Your task to perform on an android device: read, delete, or share a saved page in the chrome app Image 0: 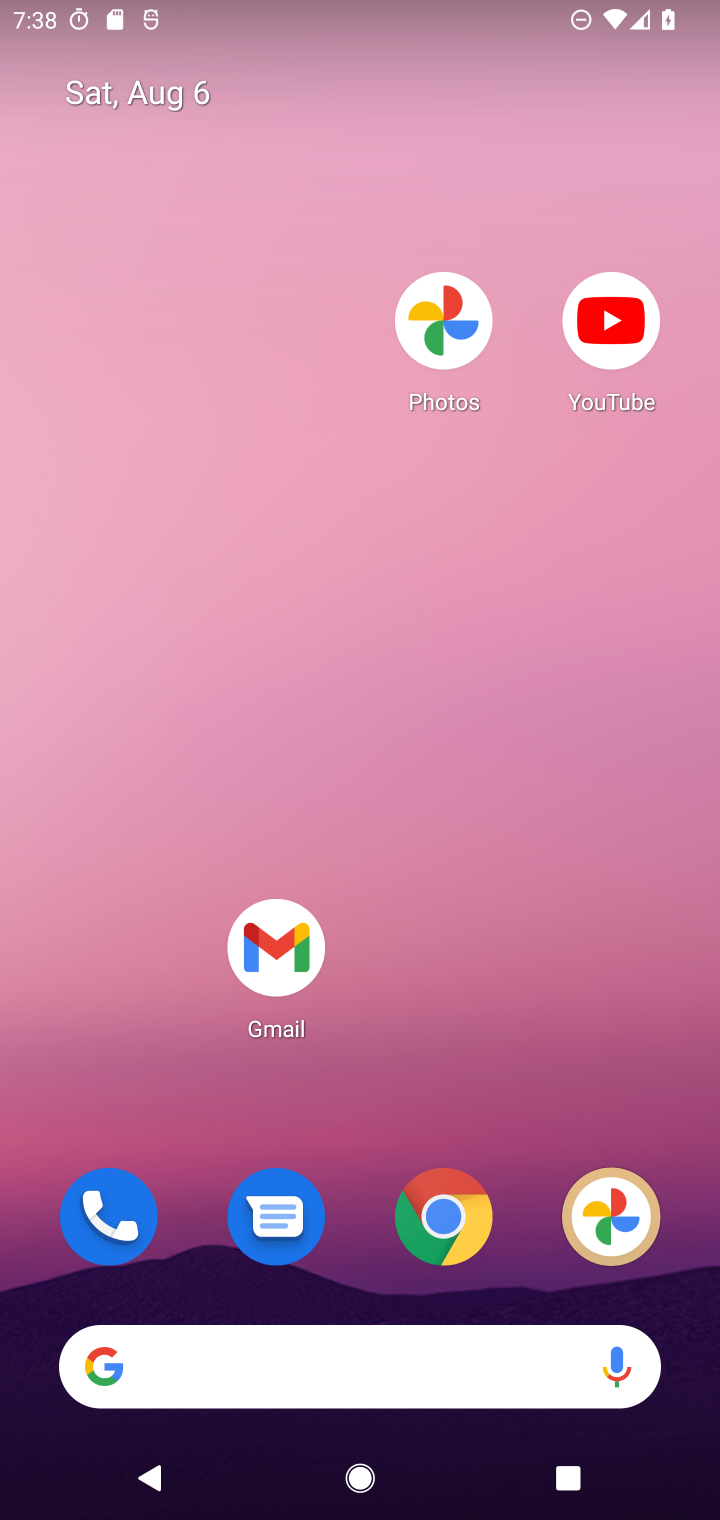
Step 0: drag from (566, 774) to (475, 109)
Your task to perform on an android device: read, delete, or share a saved page in the chrome app Image 1: 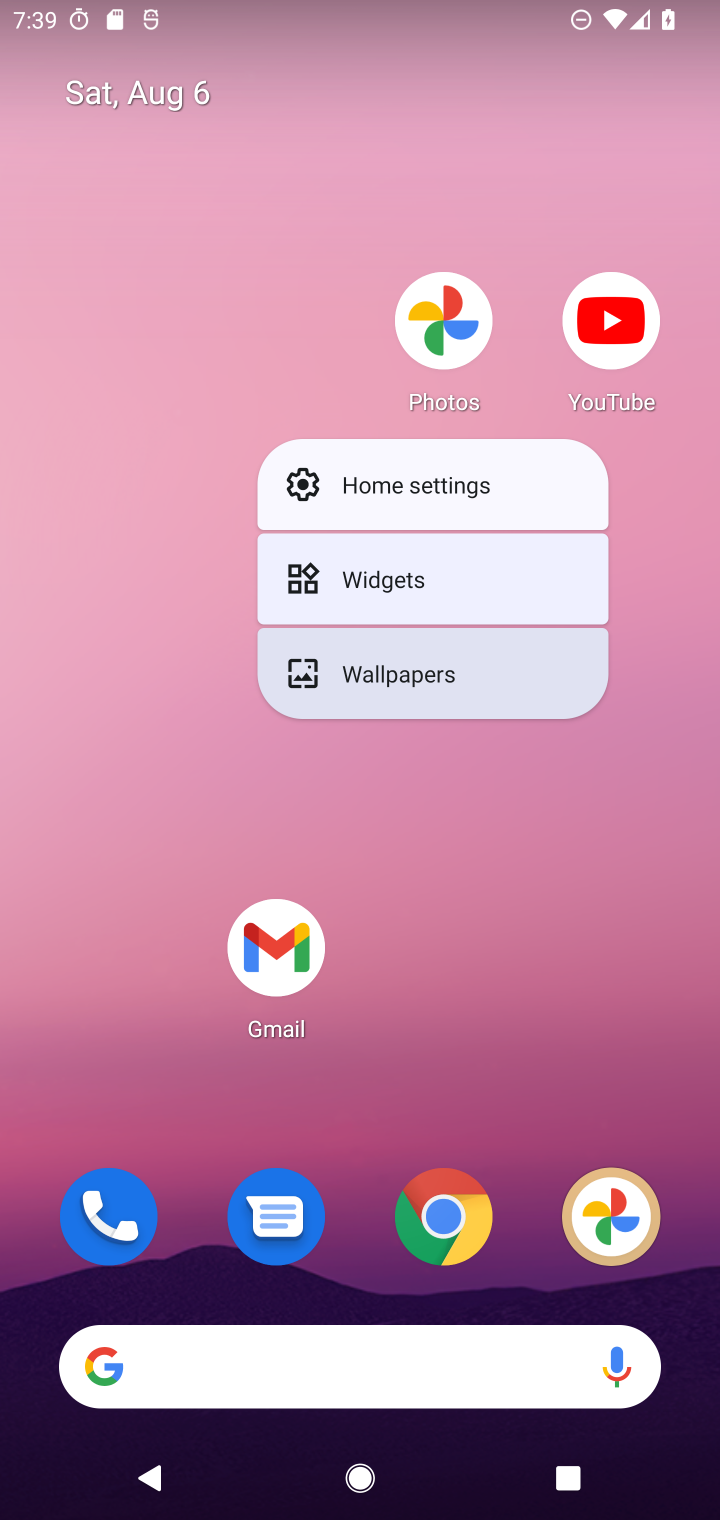
Step 1: click (506, 860)
Your task to perform on an android device: read, delete, or share a saved page in the chrome app Image 2: 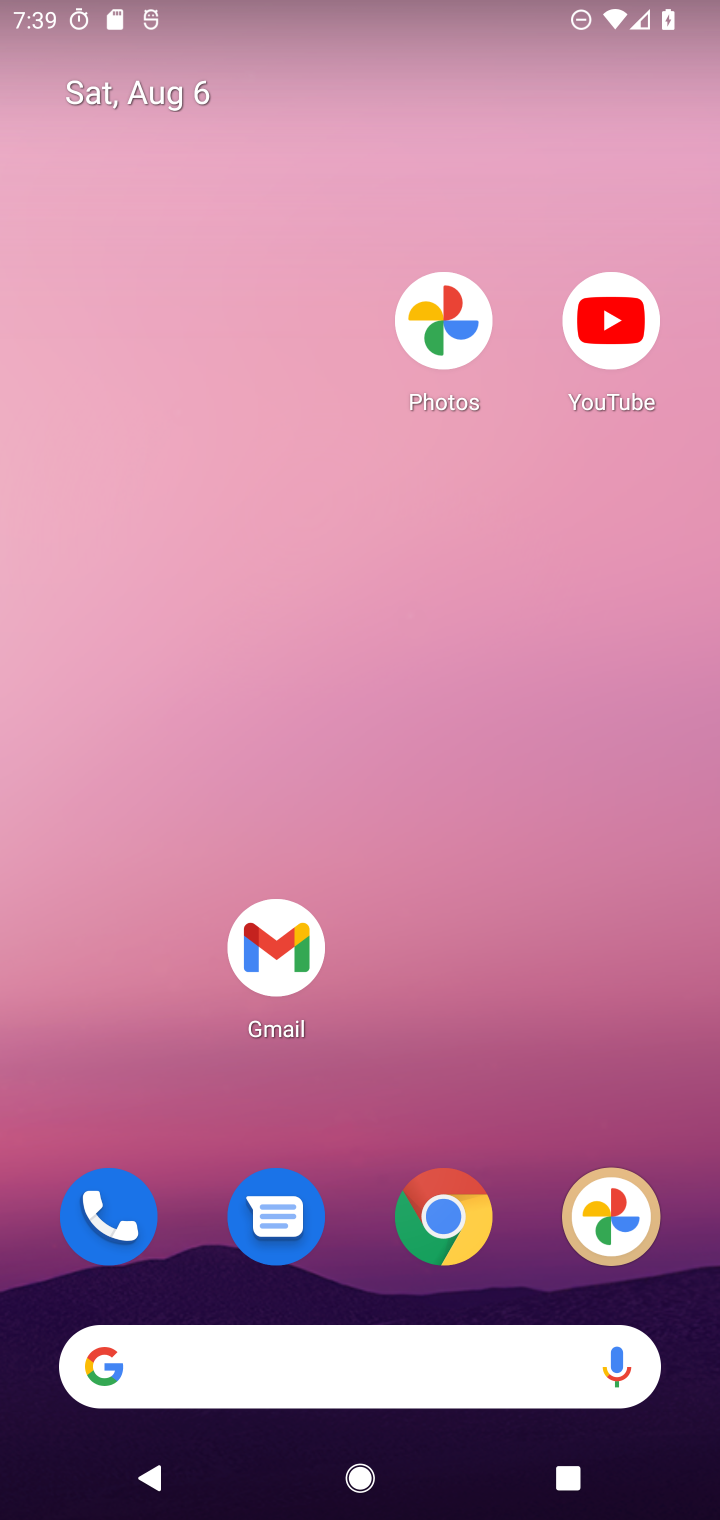
Step 2: drag from (497, 223) to (249, 14)
Your task to perform on an android device: read, delete, or share a saved page in the chrome app Image 3: 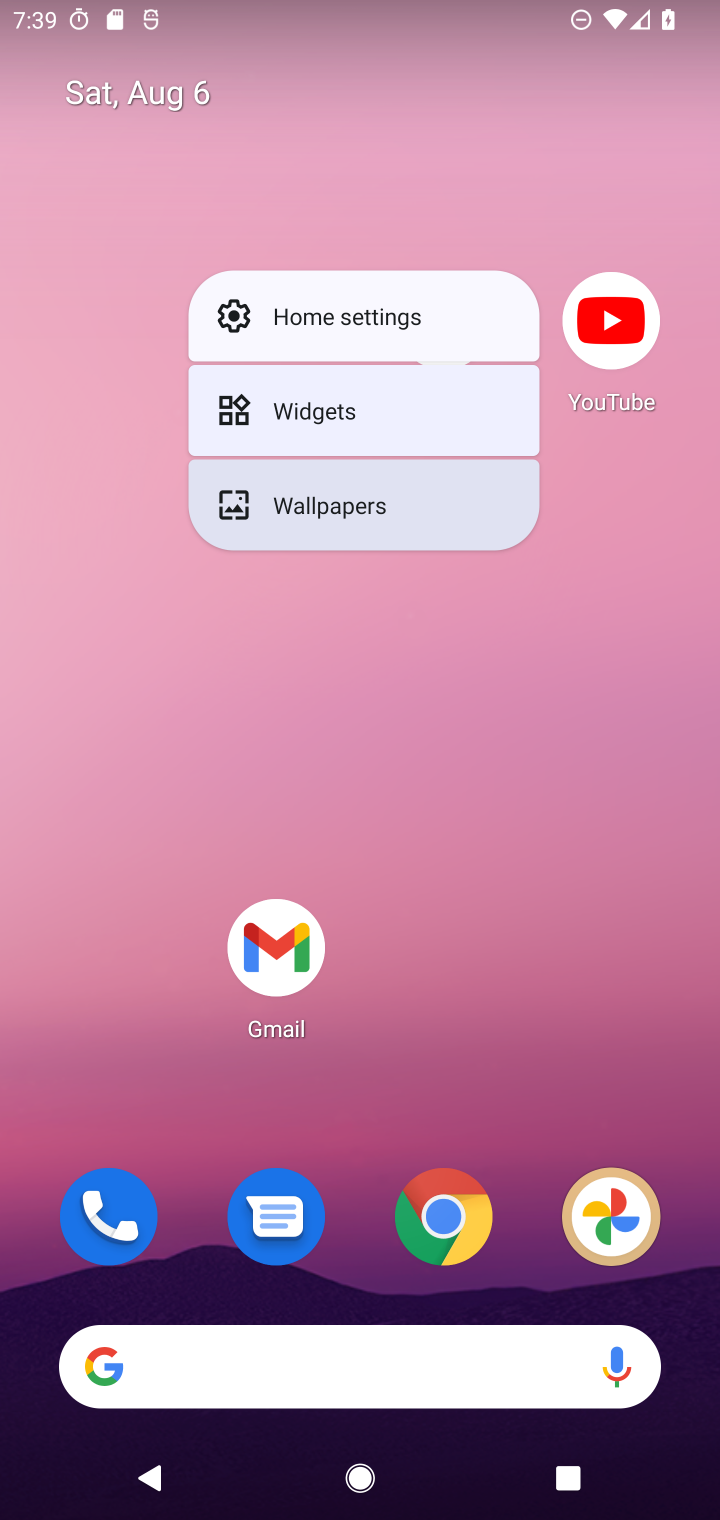
Step 3: click (376, 799)
Your task to perform on an android device: read, delete, or share a saved page in the chrome app Image 4: 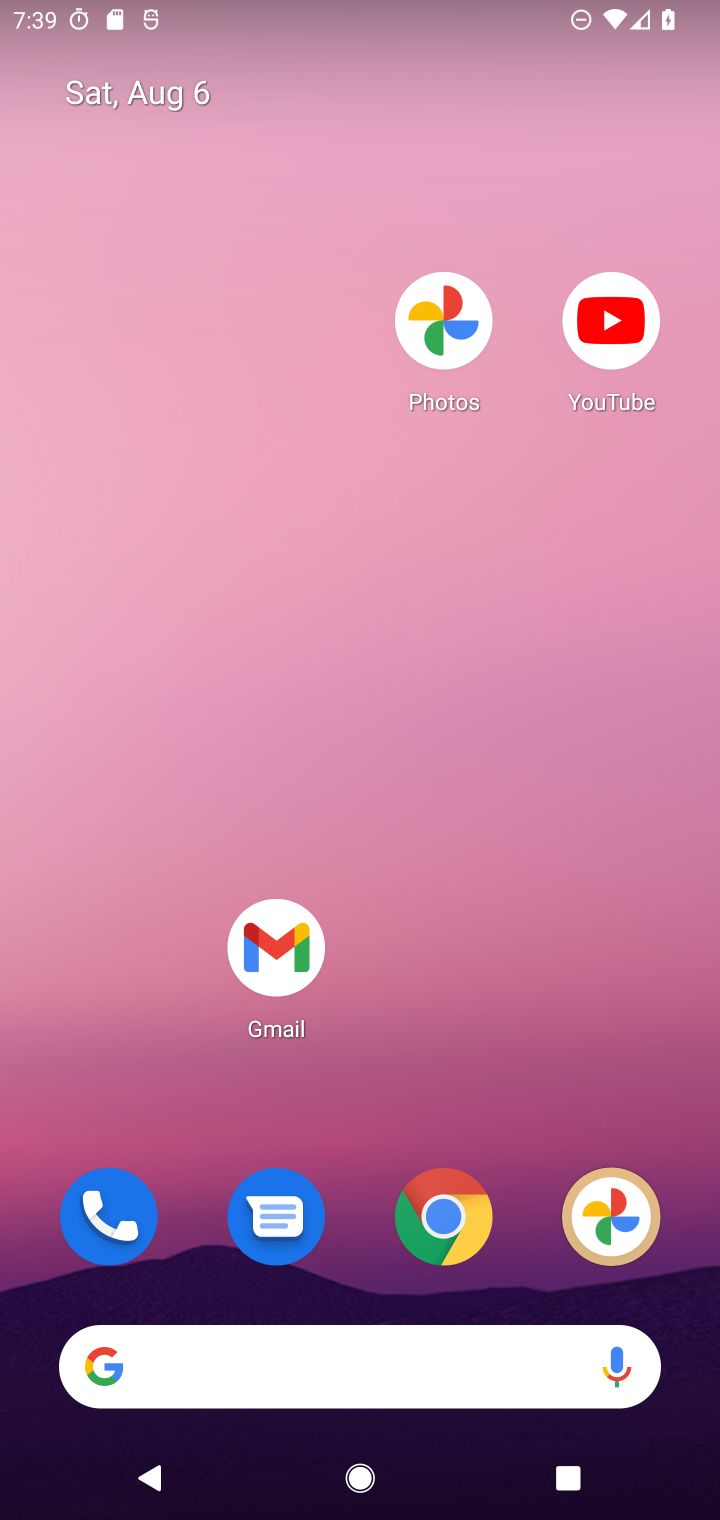
Step 4: click (585, 312)
Your task to perform on an android device: read, delete, or share a saved page in the chrome app Image 5: 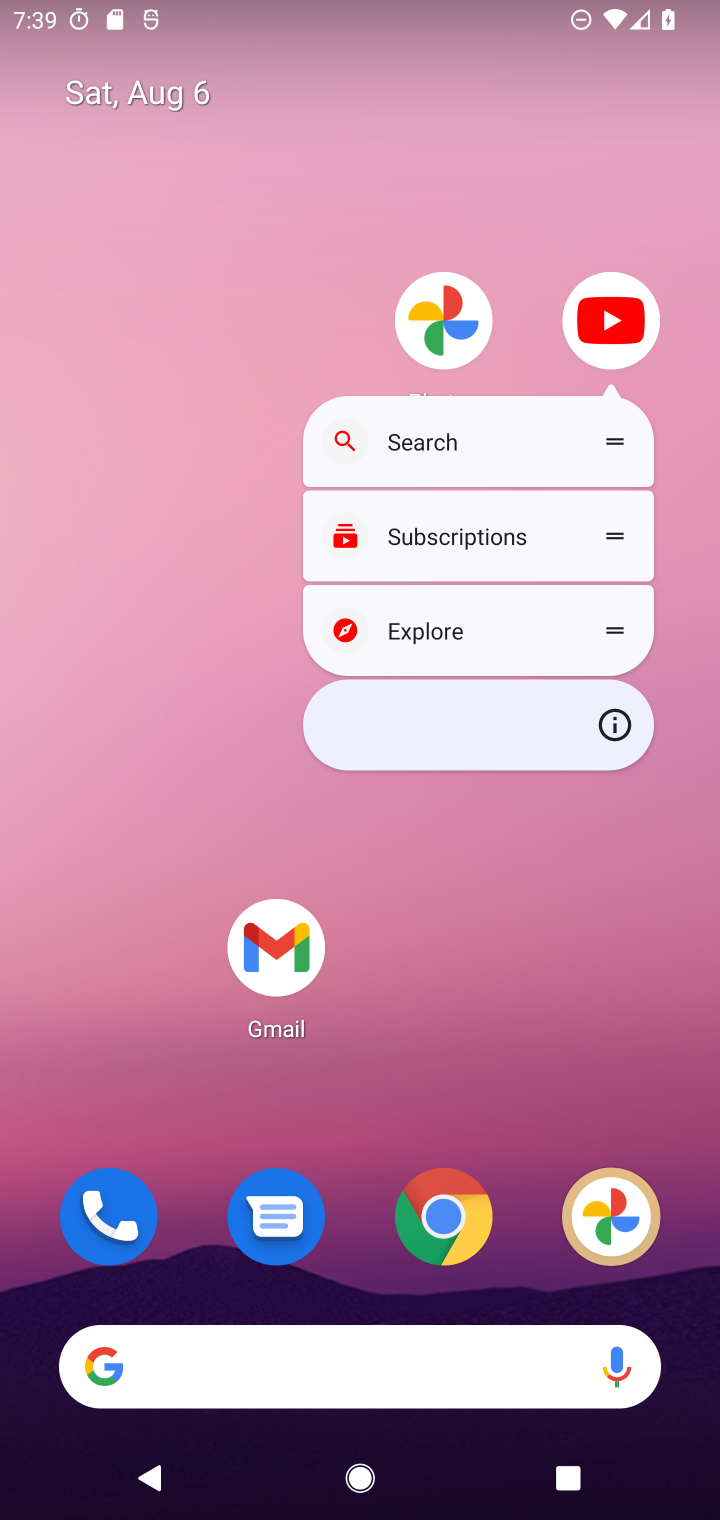
Step 5: click (512, 1039)
Your task to perform on an android device: read, delete, or share a saved page in the chrome app Image 6: 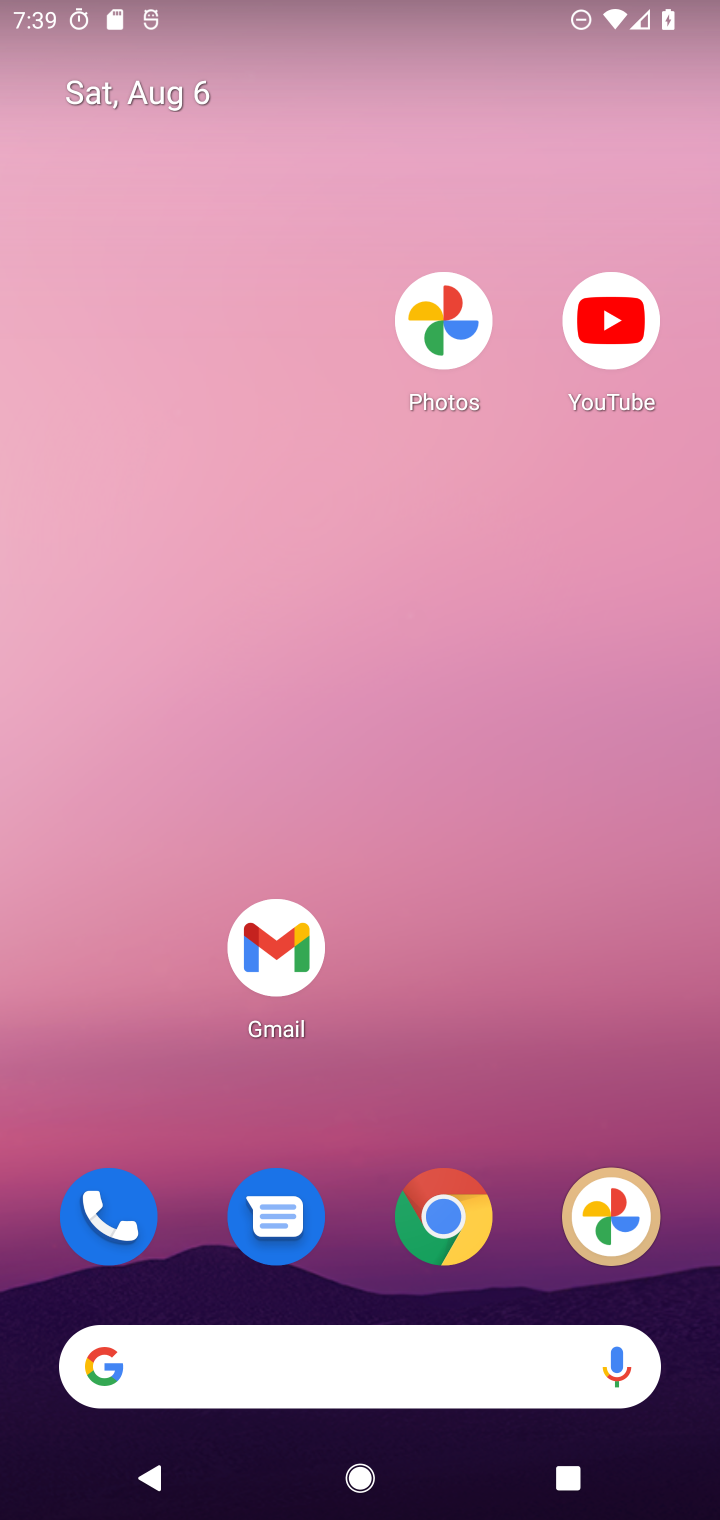
Step 6: drag from (436, 1018) to (530, 201)
Your task to perform on an android device: read, delete, or share a saved page in the chrome app Image 7: 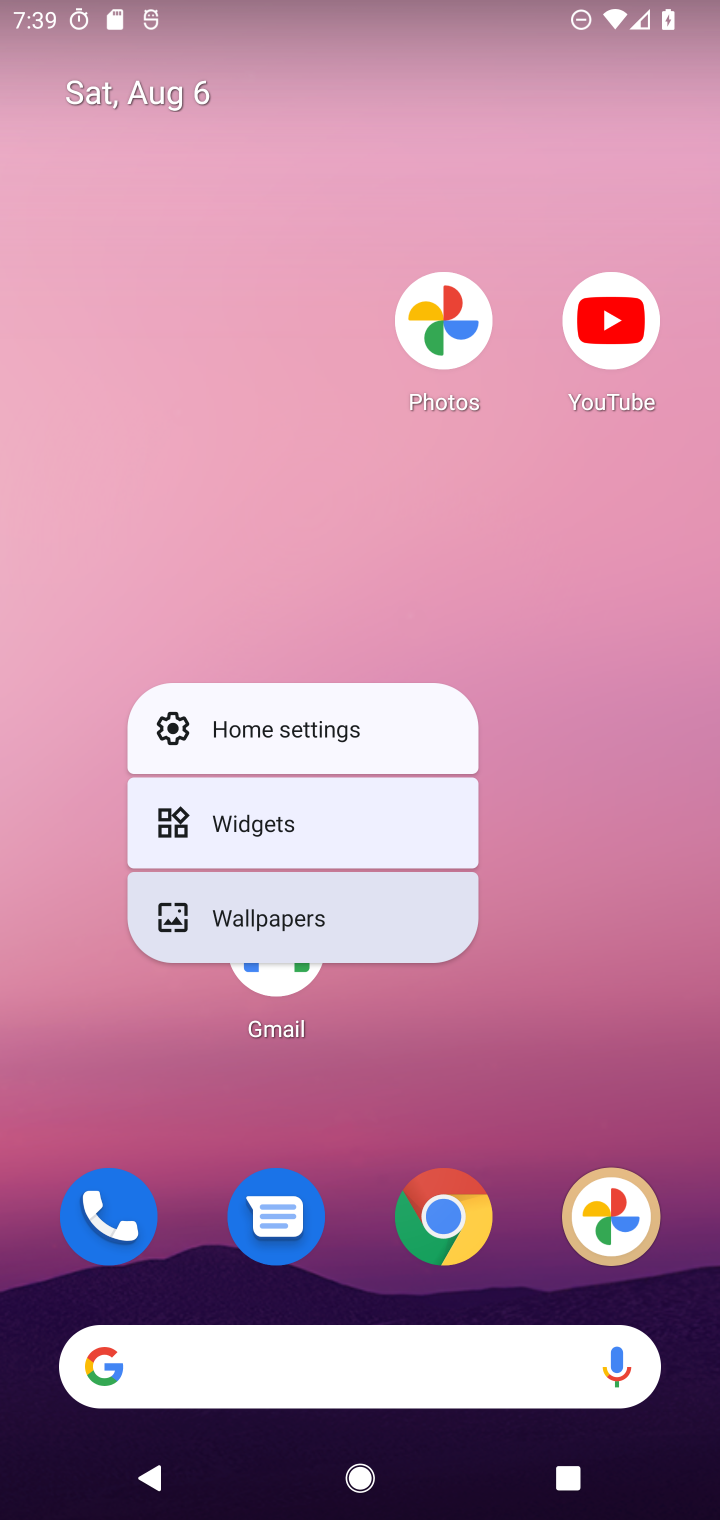
Step 7: click (596, 935)
Your task to perform on an android device: read, delete, or share a saved page in the chrome app Image 8: 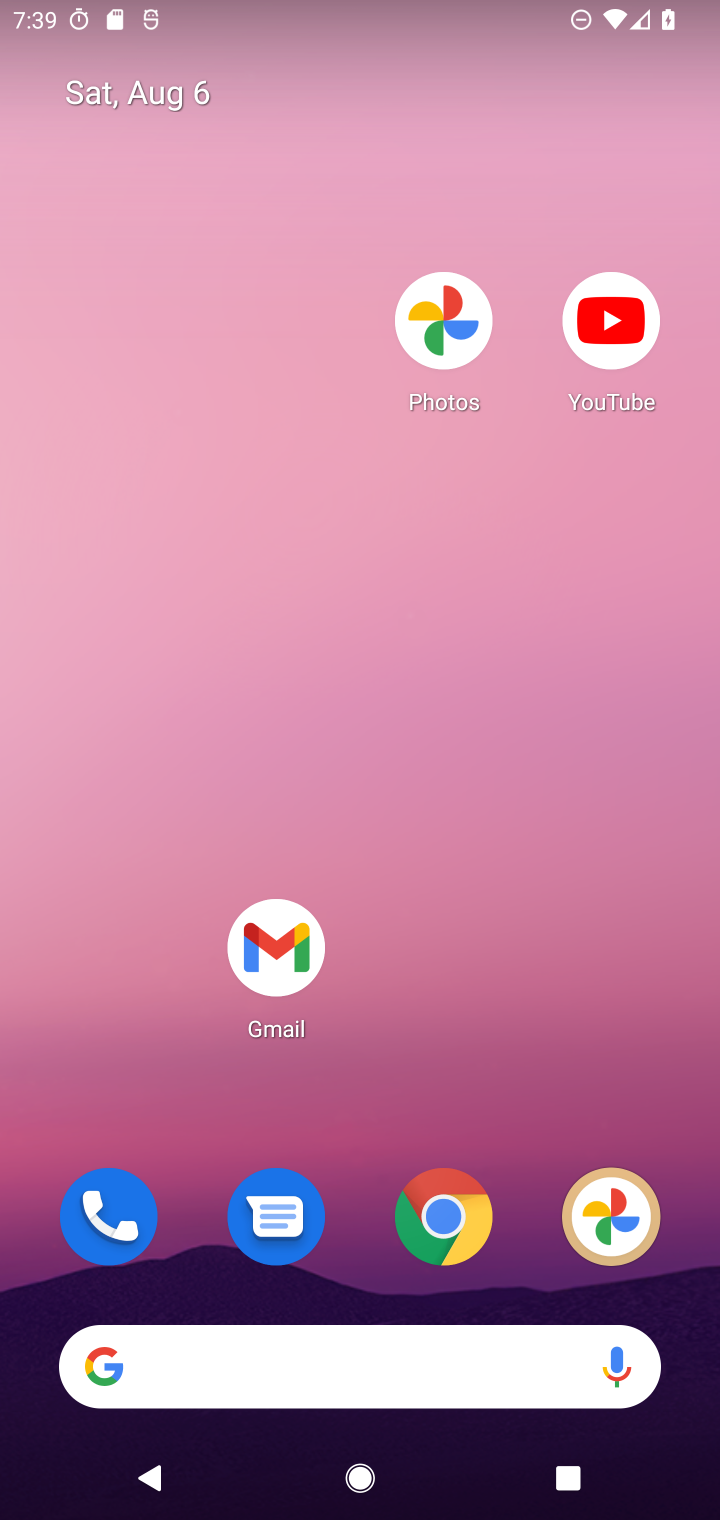
Step 8: drag from (556, 587) to (676, 258)
Your task to perform on an android device: read, delete, or share a saved page in the chrome app Image 9: 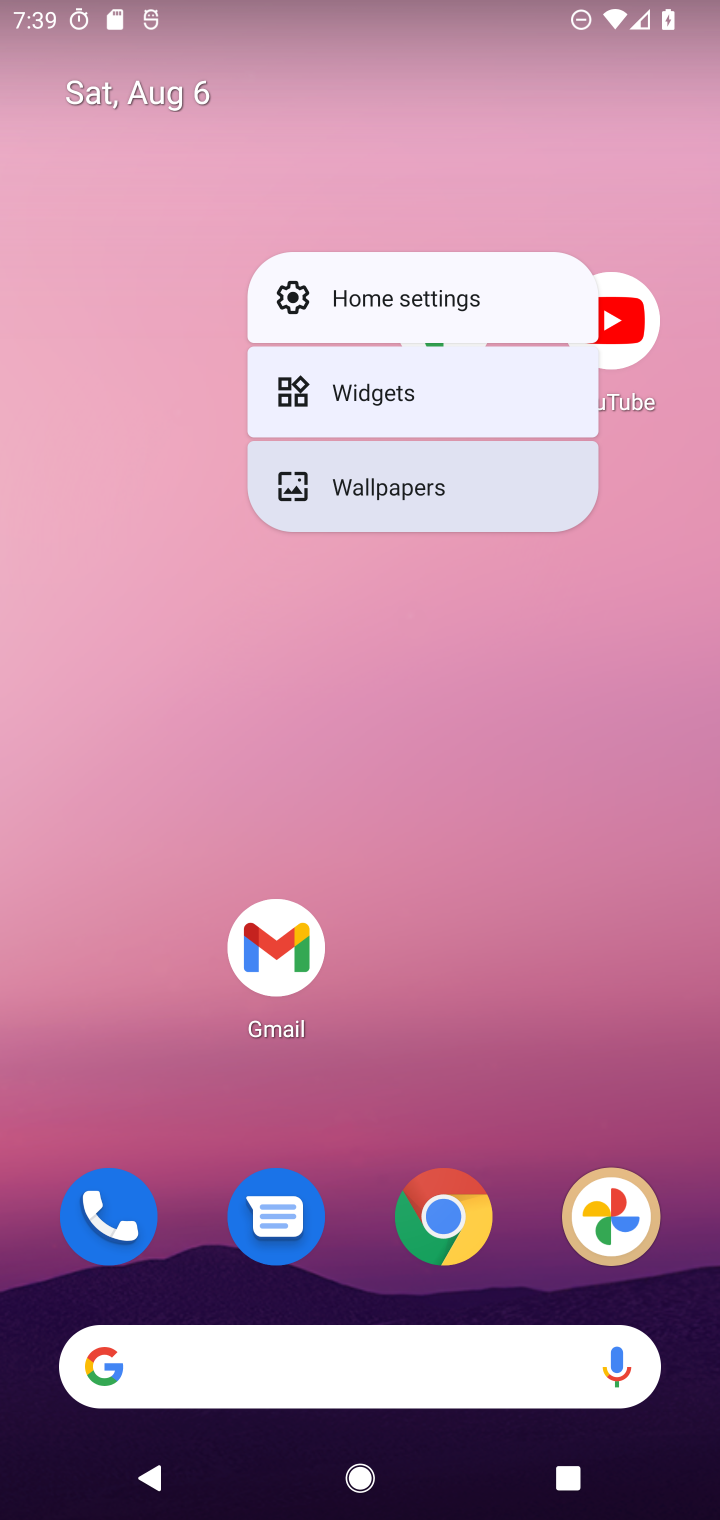
Step 9: click (506, 956)
Your task to perform on an android device: read, delete, or share a saved page in the chrome app Image 10: 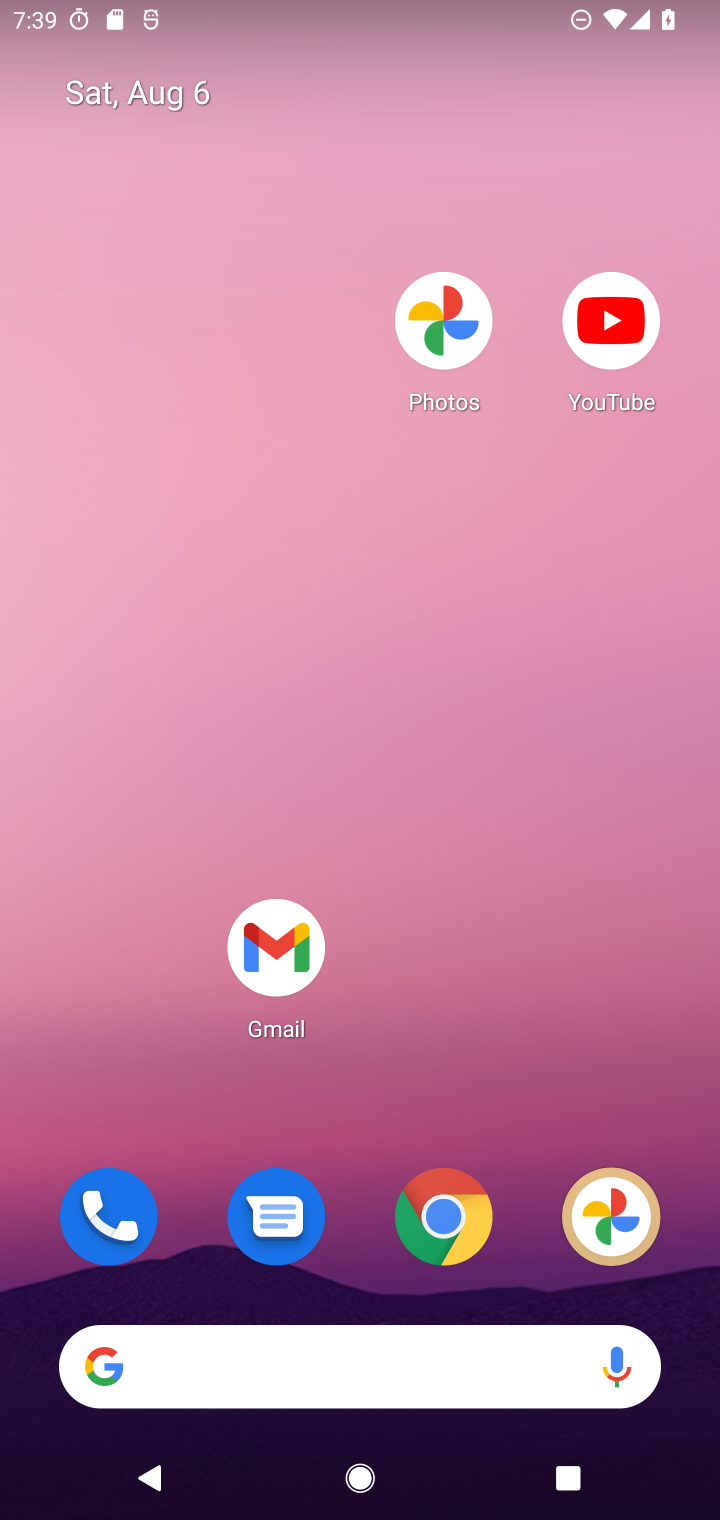
Step 10: drag from (500, 990) to (597, 35)
Your task to perform on an android device: read, delete, or share a saved page in the chrome app Image 11: 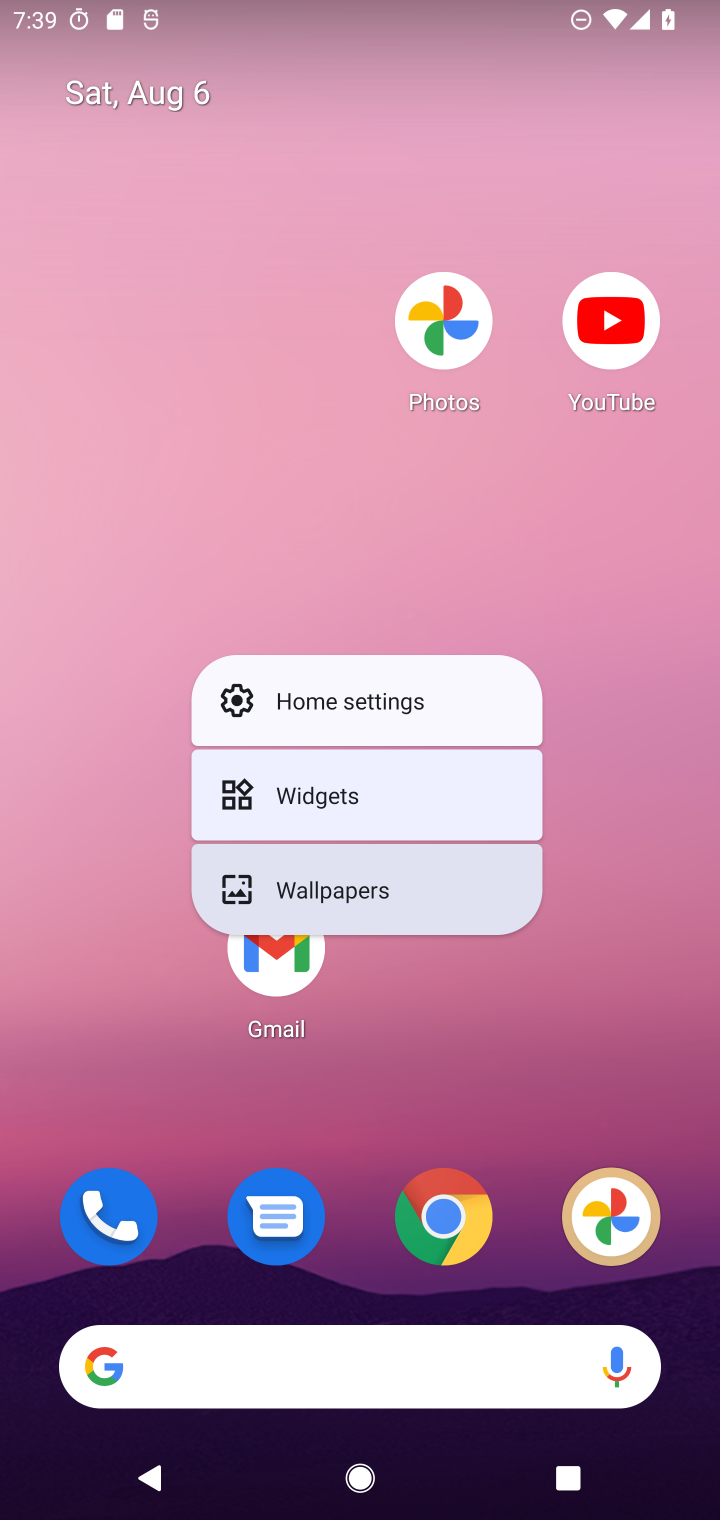
Step 11: click (550, 957)
Your task to perform on an android device: read, delete, or share a saved page in the chrome app Image 12: 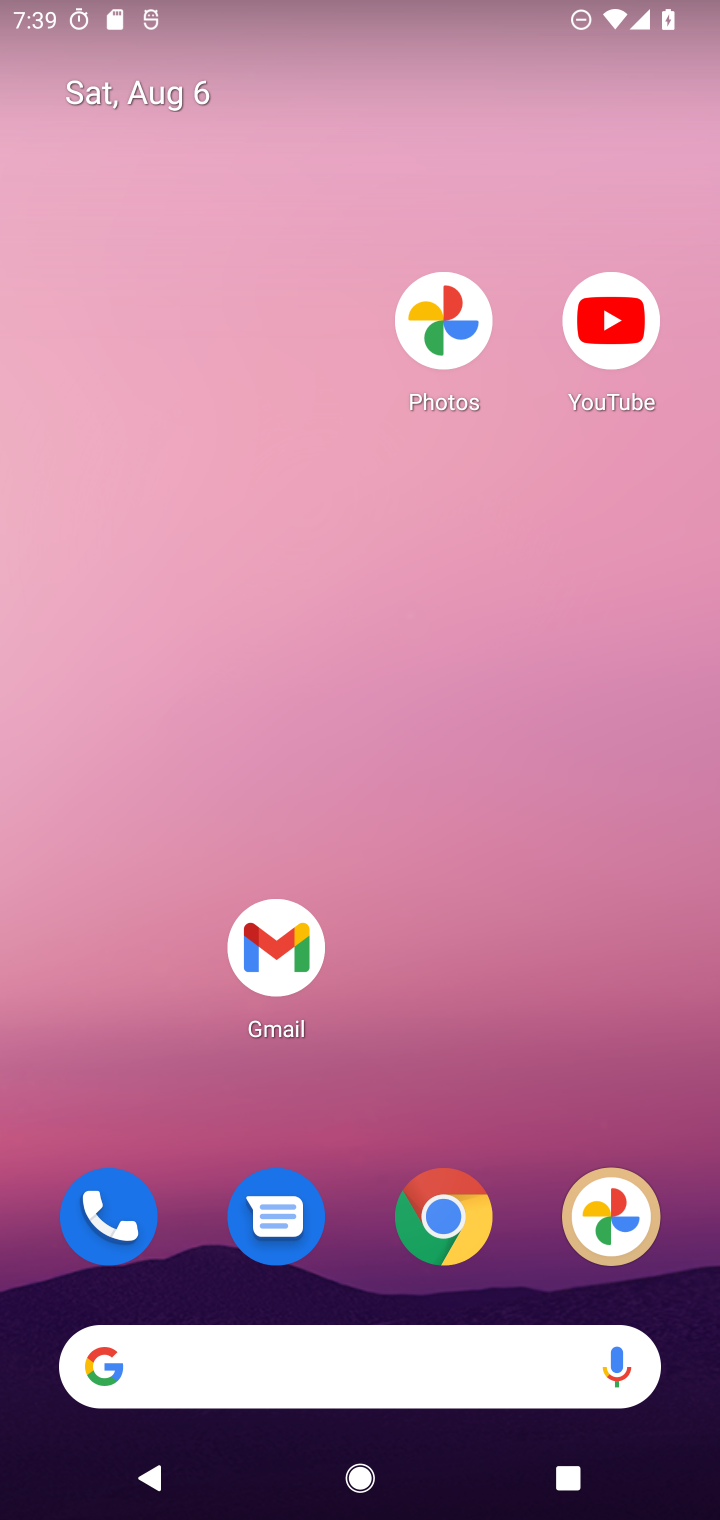
Step 12: drag from (492, 1072) to (671, 655)
Your task to perform on an android device: read, delete, or share a saved page in the chrome app Image 13: 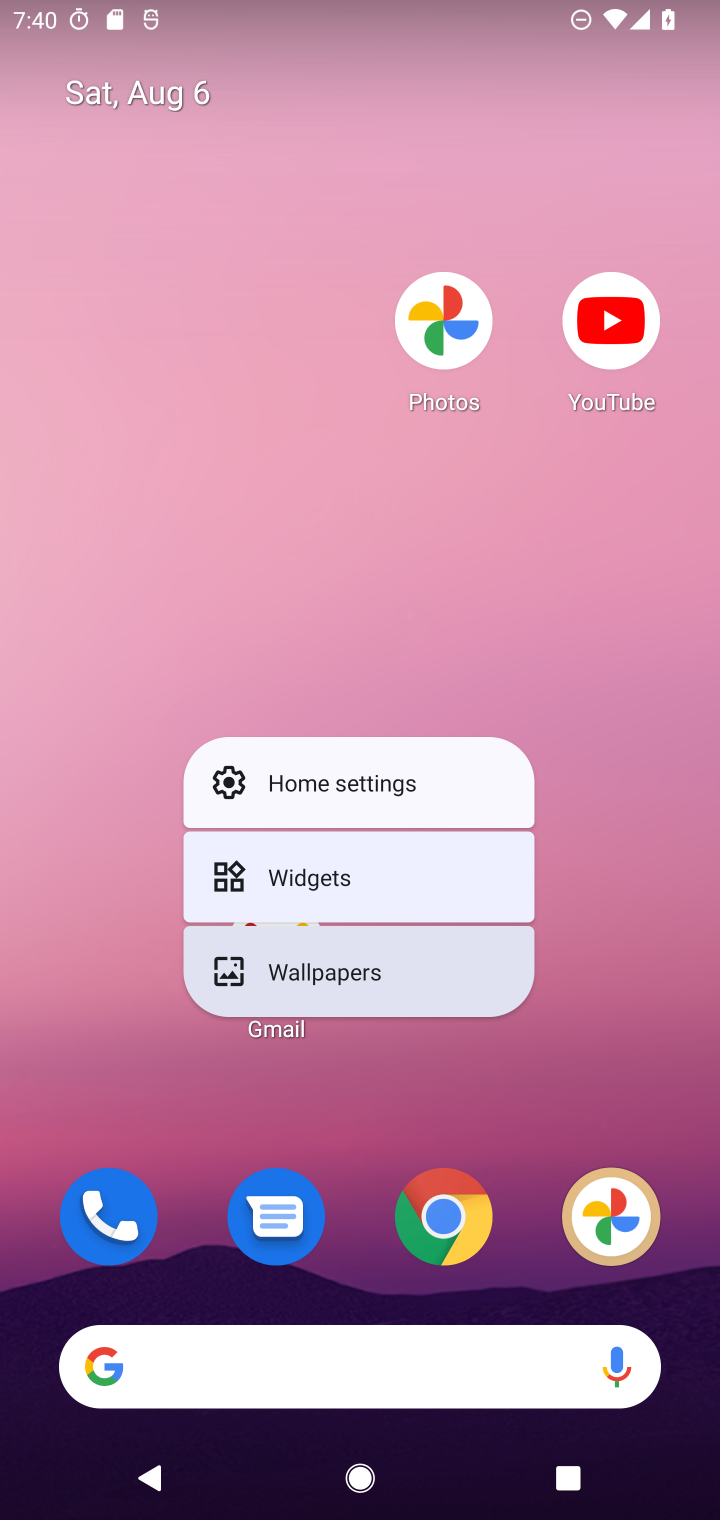
Step 13: click (501, 589)
Your task to perform on an android device: read, delete, or share a saved page in the chrome app Image 14: 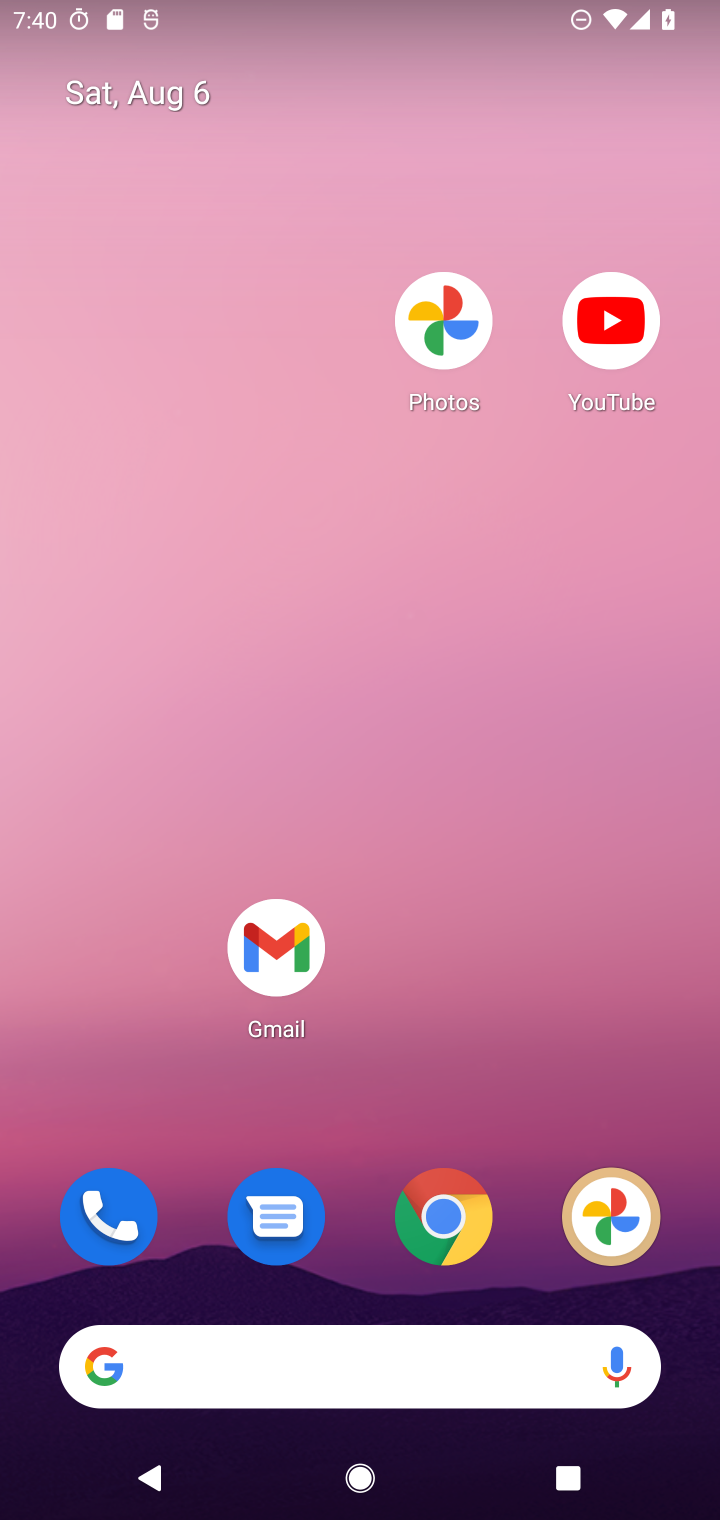
Step 14: drag from (517, 977) to (579, 114)
Your task to perform on an android device: read, delete, or share a saved page in the chrome app Image 15: 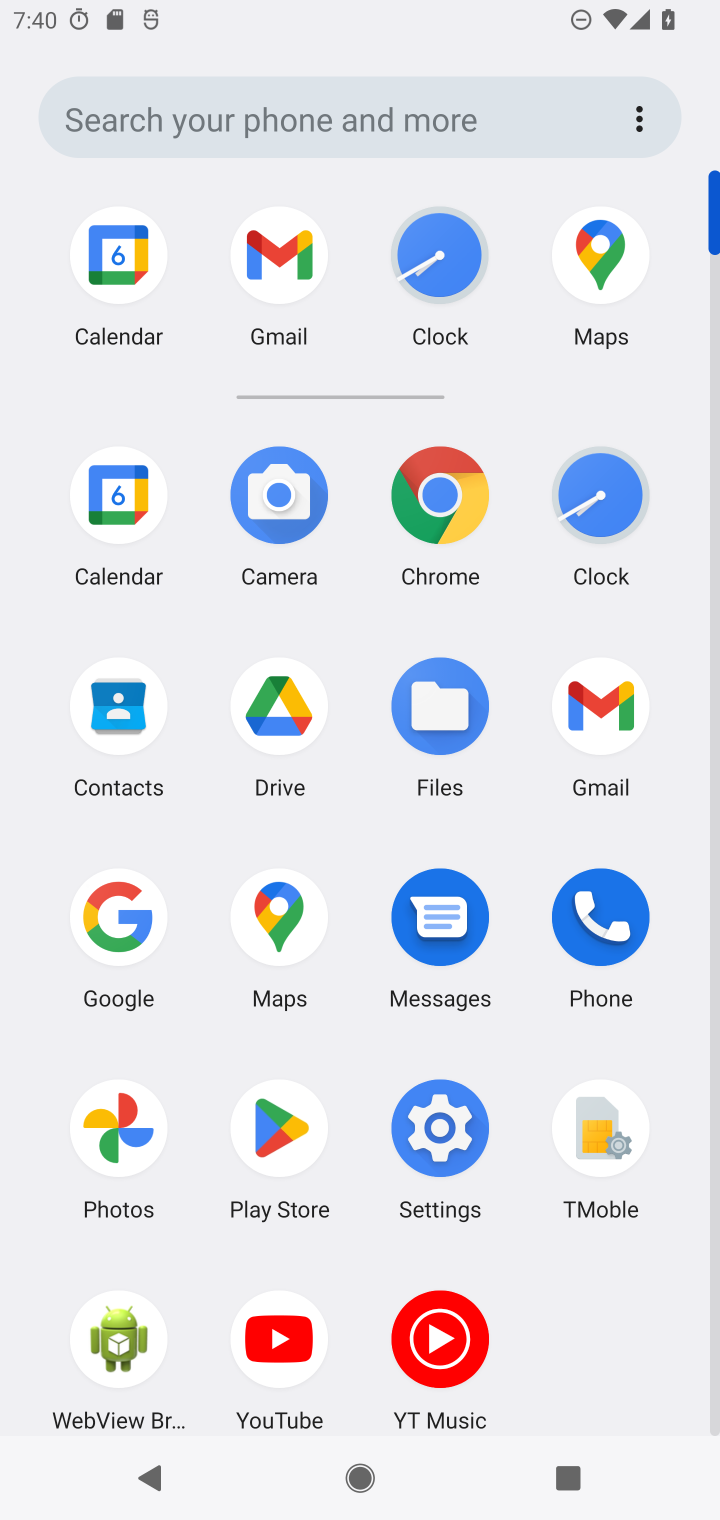
Step 15: click (433, 501)
Your task to perform on an android device: read, delete, or share a saved page in the chrome app Image 16: 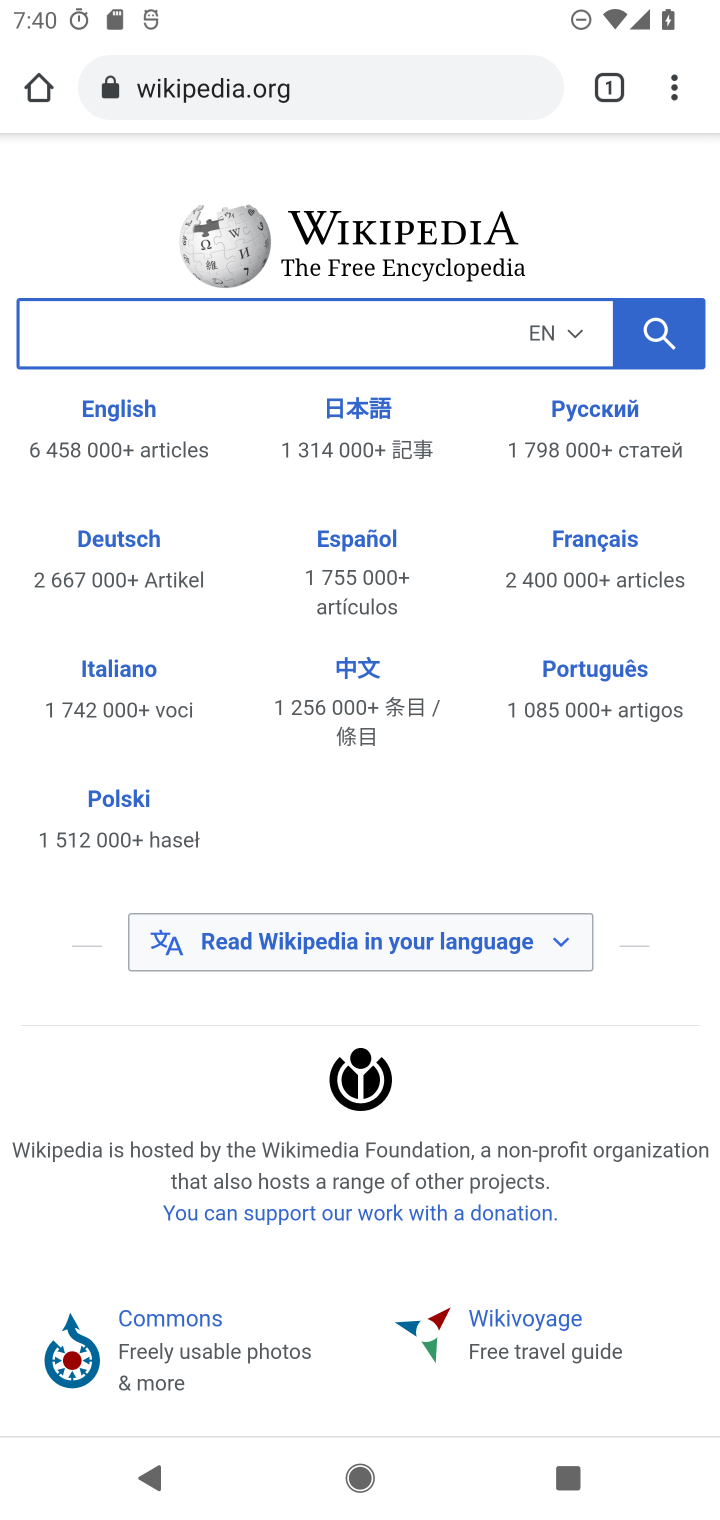
Step 16: task complete